Your task to perform on an android device: add a contact in the contacts app Image 0: 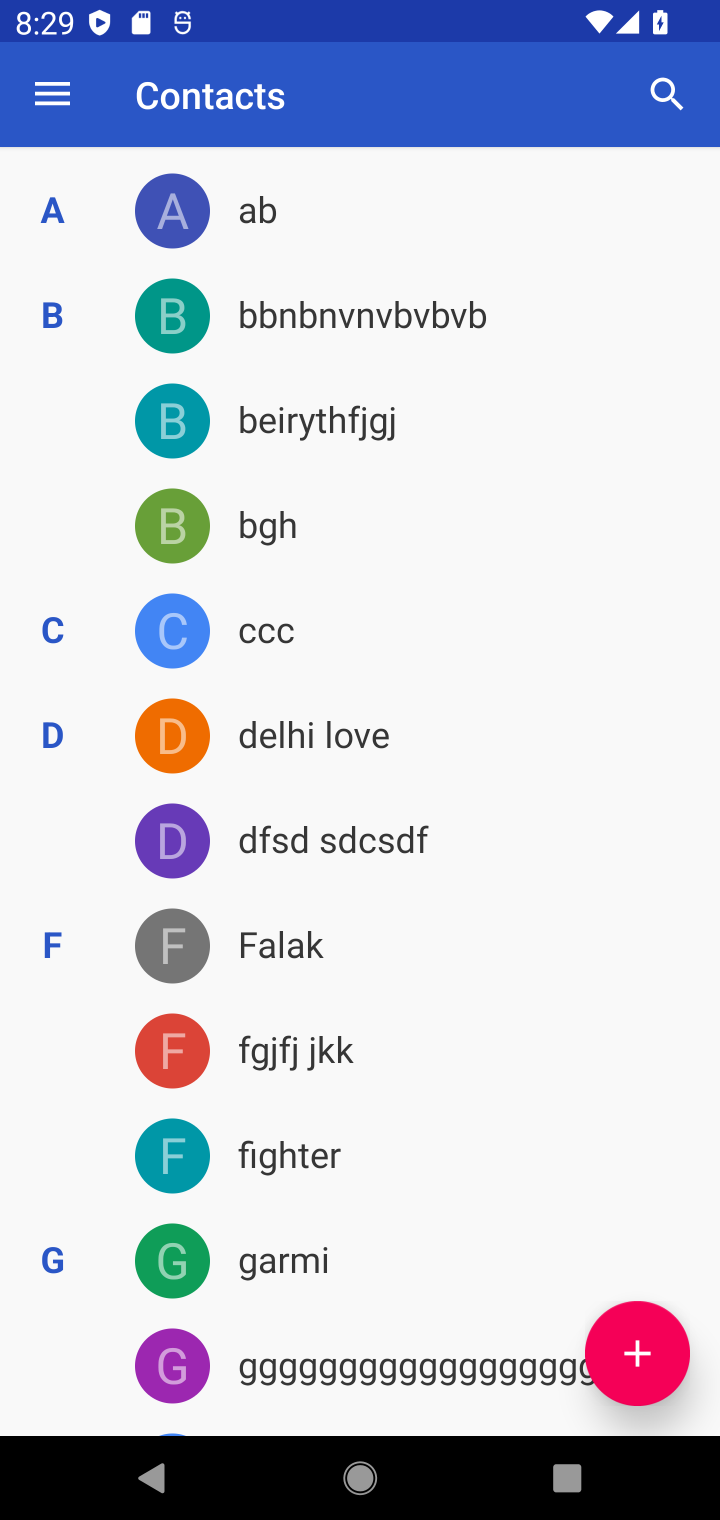
Step 0: click (639, 1353)
Your task to perform on an android device: add a contact in the contacts app Image 1: 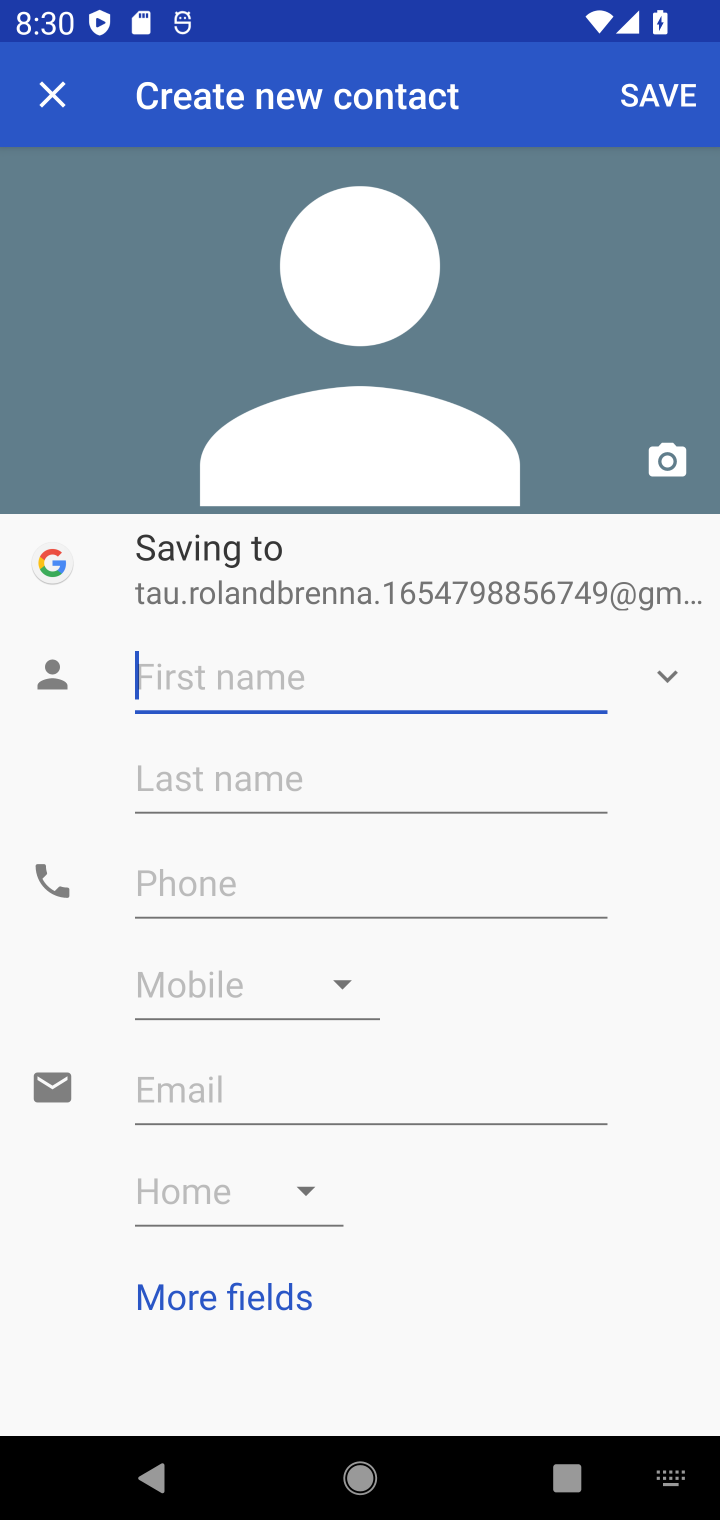
Step 1: type "sdsvsrs"
Your task to perform on an android device: add a contact in the contacts app Image 2: 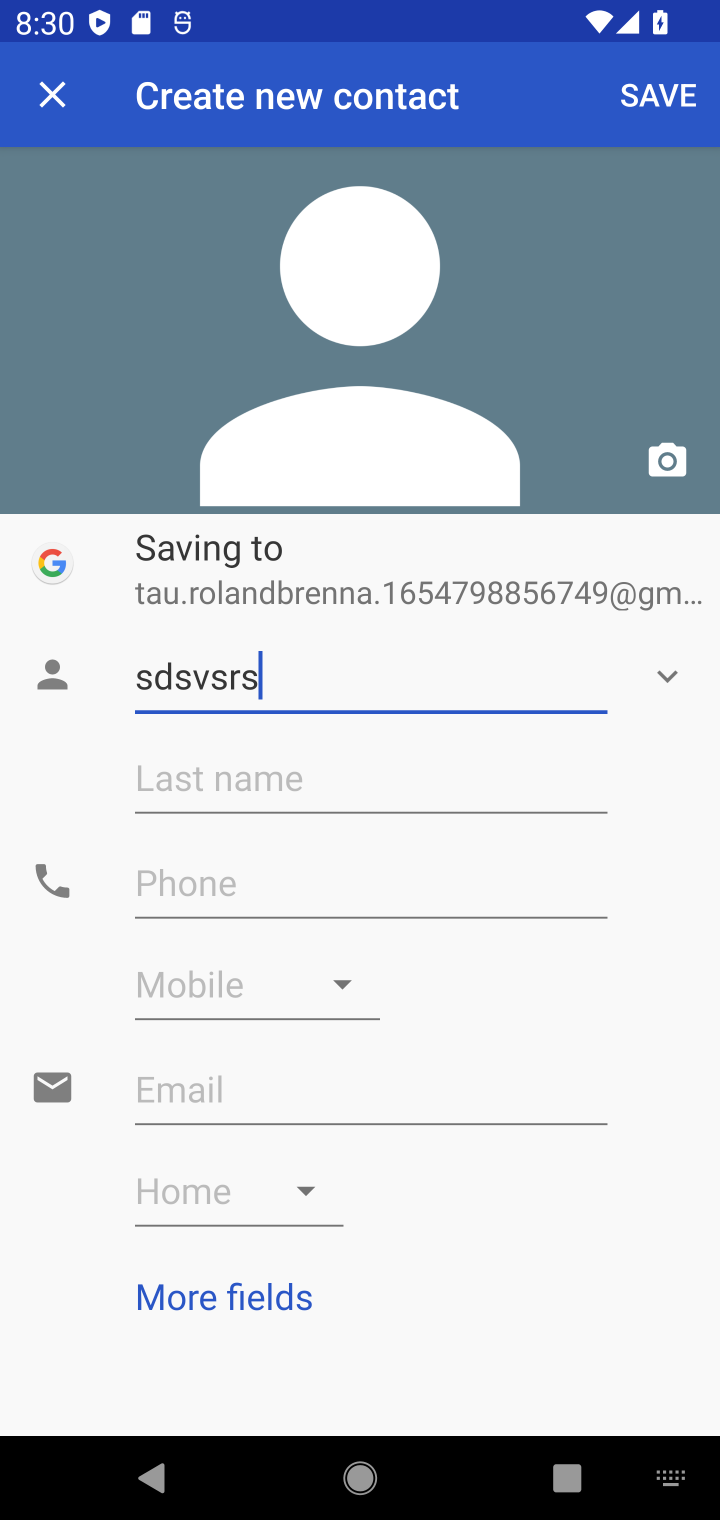
Step 2: click (655, 103)
Your task to perform on an android device: add a contact in the contacts app Image 3: 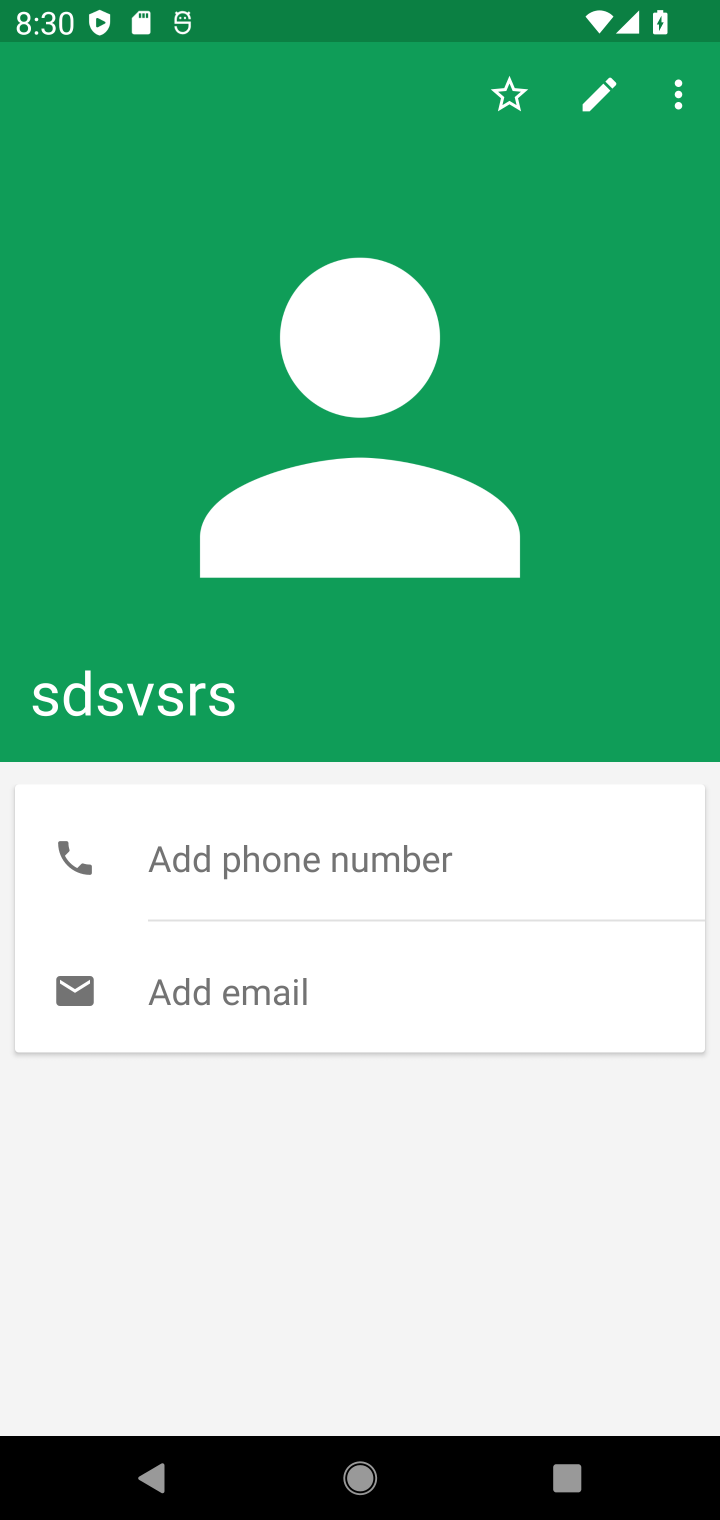
Step 3: task complete